Your task to perform on an android device: Go to ESPN.com Image 0: 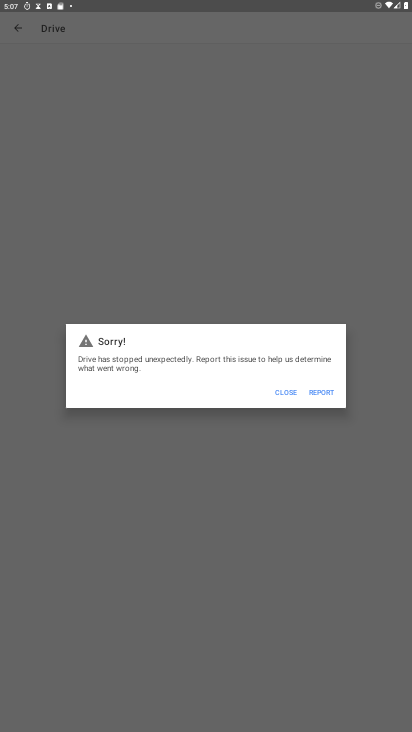
Step 0: press home button
Your task to perform on an android device: Go to ESPN.com Image 1: 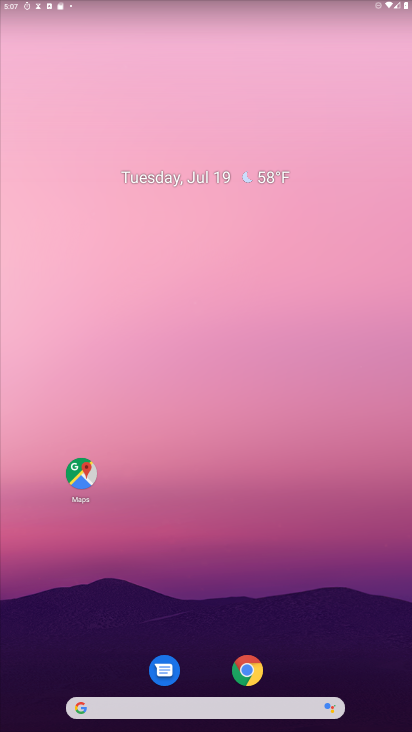
Step 1: drag from (247, 646) to (302, 14)
Your task to perform on an android device: Go to ESPN.com Image 2: 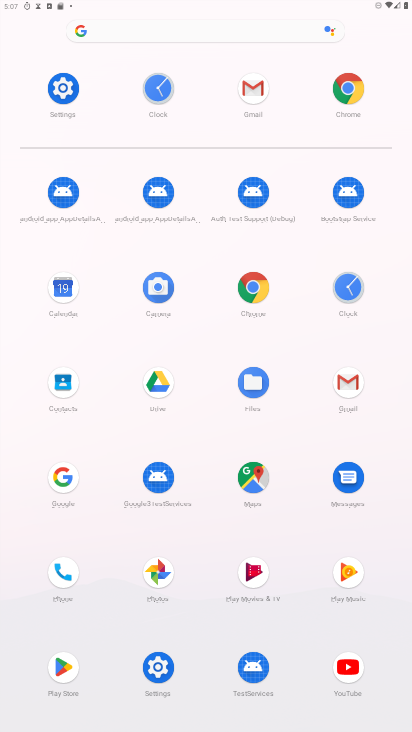
Step 2: click (244, 285)
Your task to perform on an android device: Go to ESPN.com Image 3: 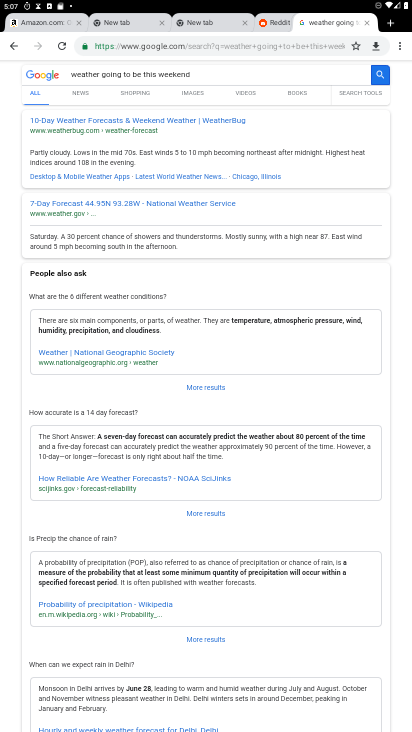
Step 3: click (252, 51)
Your task to perform on an android device: Go to ESPN.com Image 4: 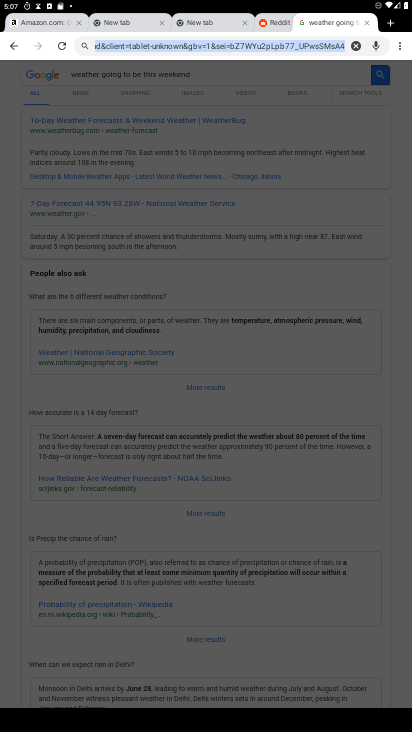
Step 4: type "espn.com"
Your task to perform on an android device: Go to ESPN.com Image 5: 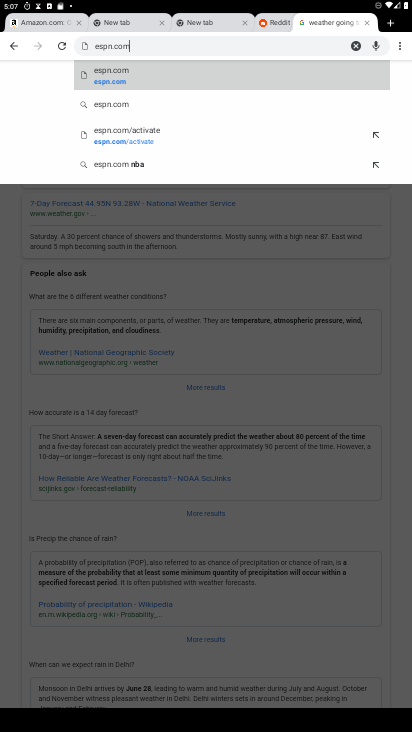
Step 5: click (149, 79)
Your task to perform on an android device: Go to ESPN.com Image 6: 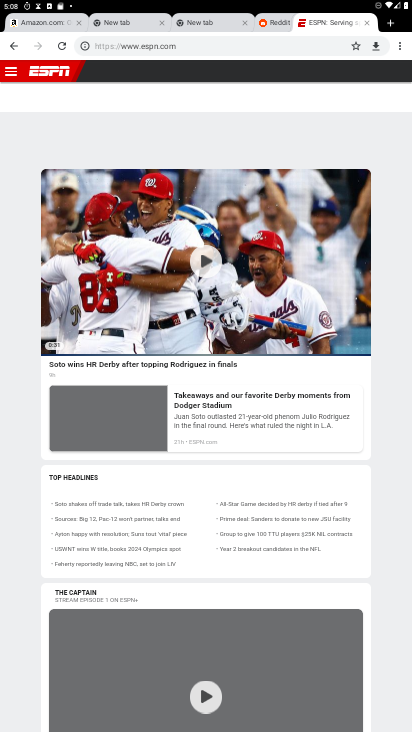
Step 6: task complete